Your task to perform on an android device: turn on data saver in the chrome app Image 0: 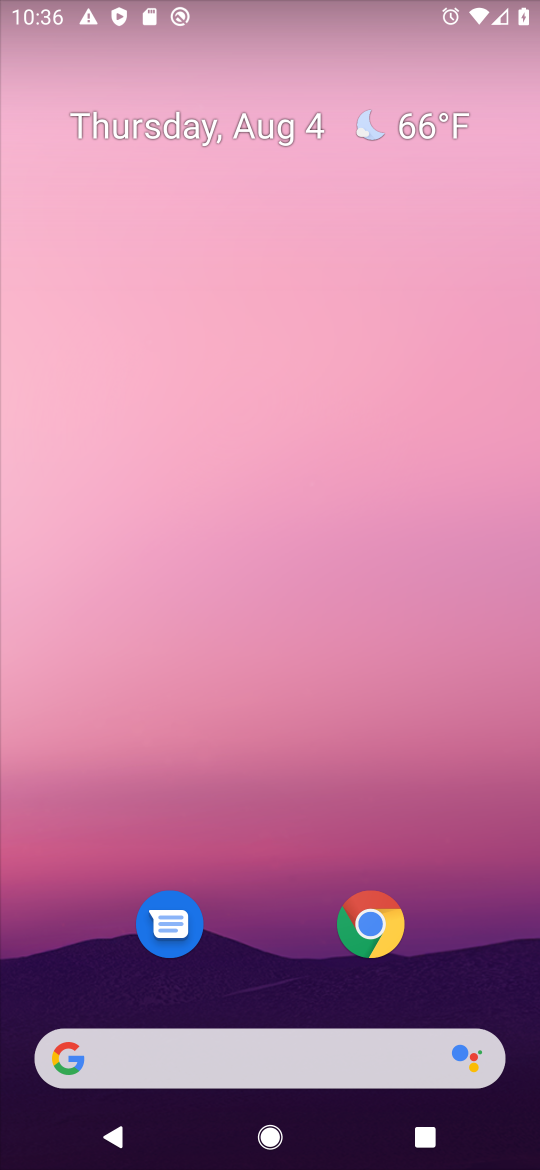
Step 0: press home button
Your task to perform on an android device: turn on data saver in the chrome app Image 1: 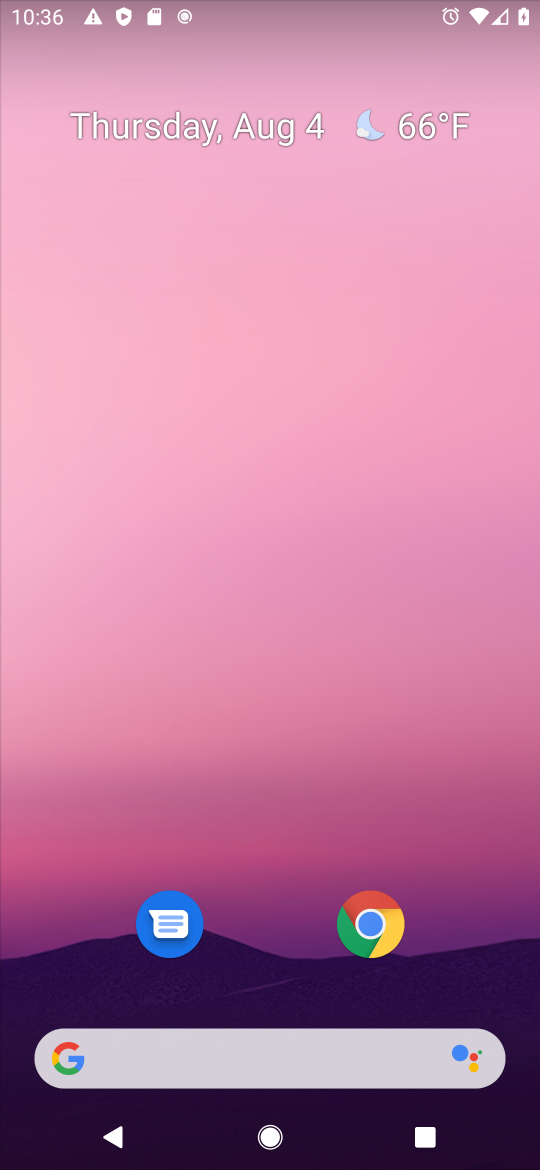
Step 1: click (365, 925)
Your task to perform on an android device: turn on data saver in the chrome app Image 2: 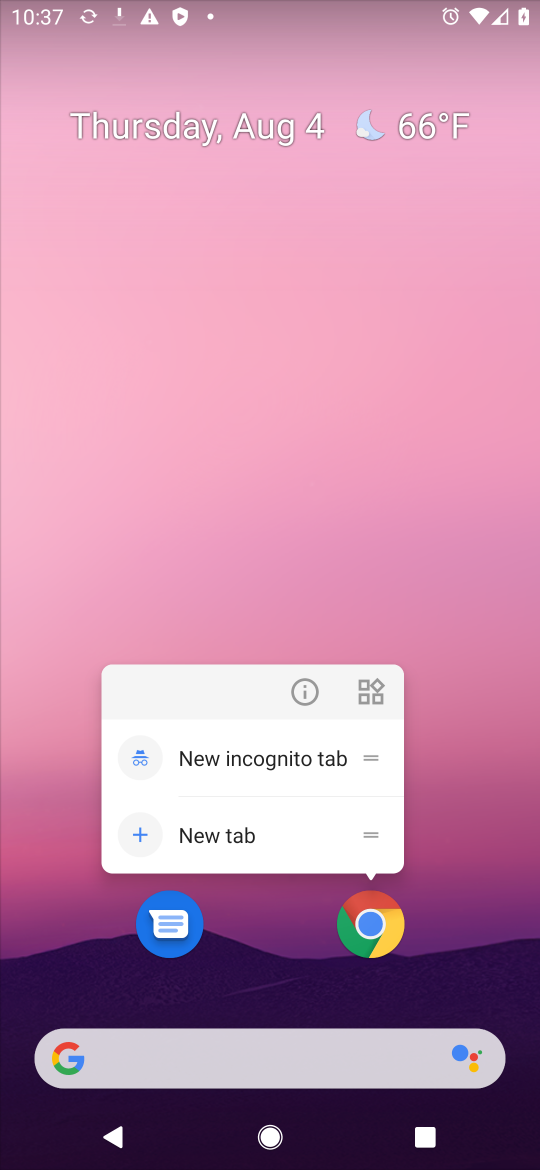
Step 2: click (365, 925)
Your task to perform on an android device: turn on data saver in the chrome app Image 3: 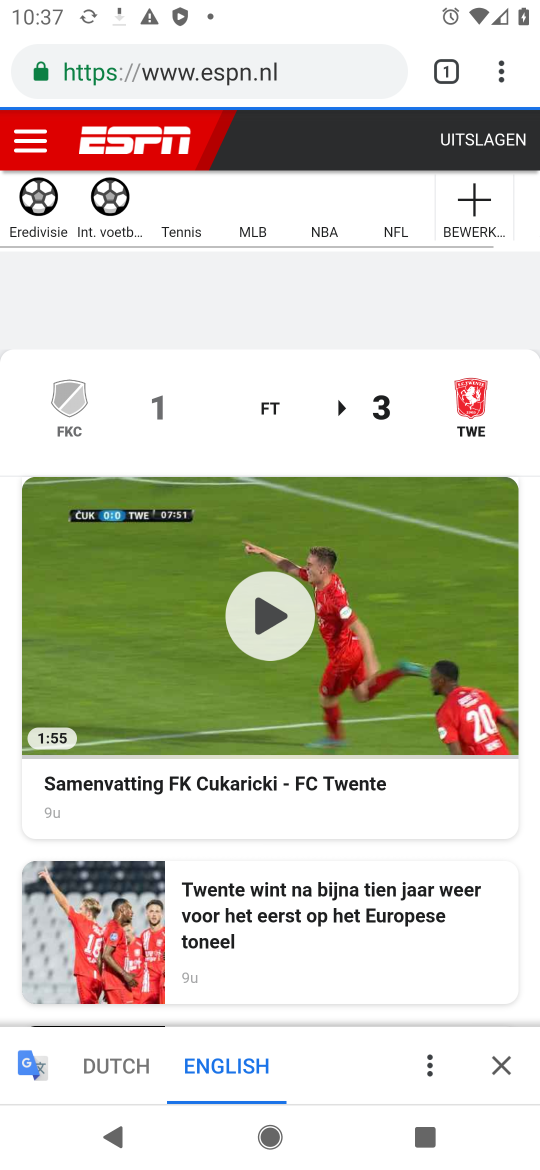
Step 3: drag from (503, 71) to (290, 860)
Your task to perform on an android device: turn on data saver in the chrome app Image 4: 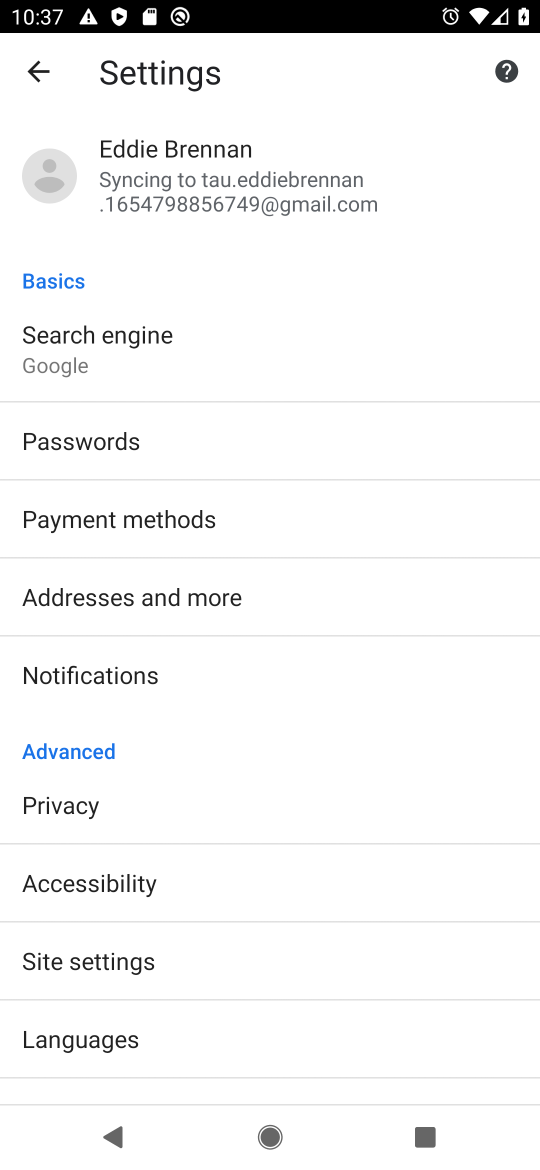
Step 4: drag from (173, 993) to (387, 394)
Your task to perform on an android device: turn on data saver in the chrome app Image 5: 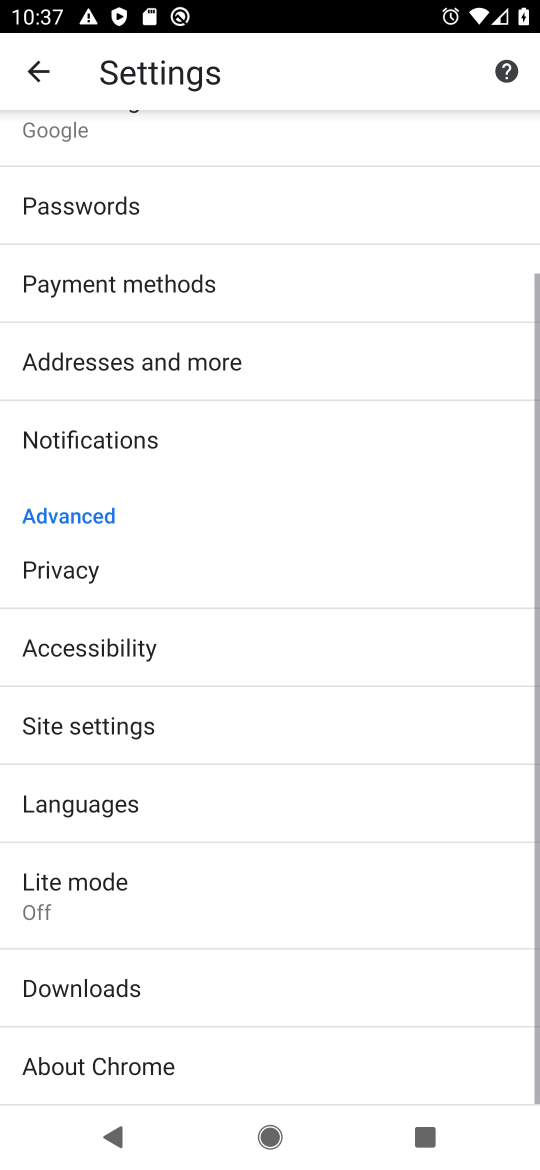
Step 5: click (143, 875)
Your task to perform on an android device: turn on data saver in the chrome app Image 6: 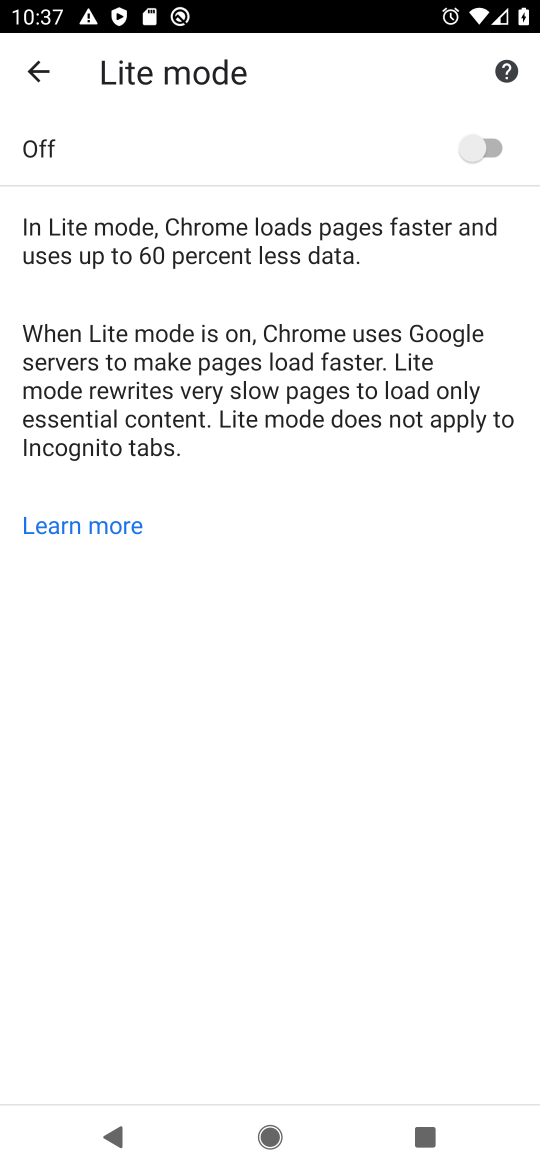
Step 6: click (495, 147)
Your task to perform on an android device: turn on data saver in the chrome app Image 7: 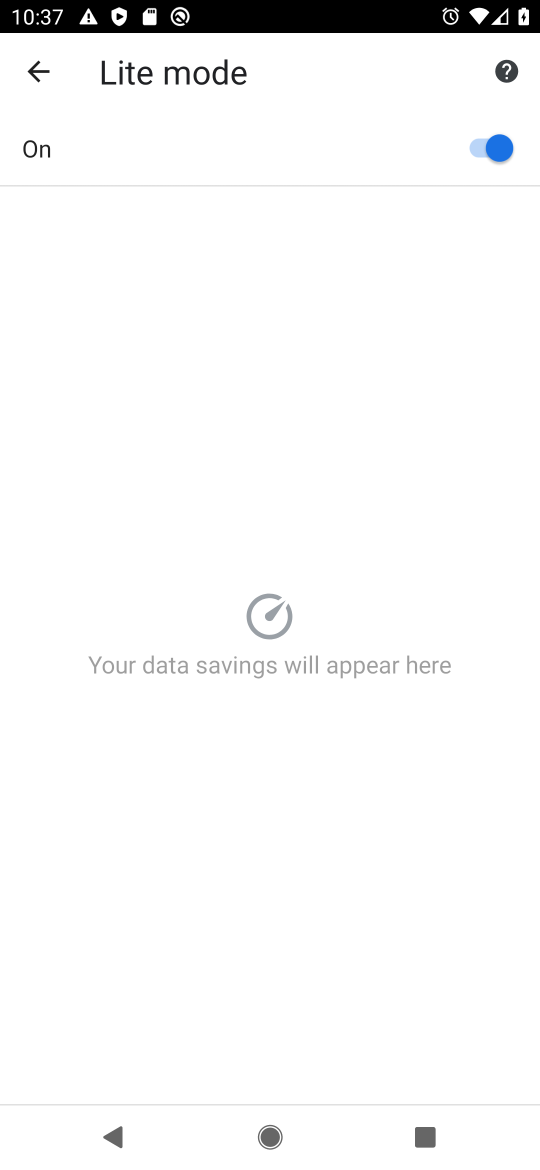
Step 7: task complete